Your task to perform on an android device: change keyboard looks Image 0: 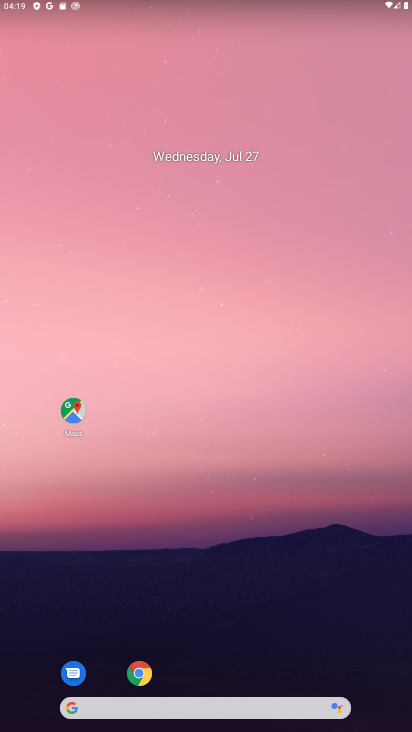
Step 0: drag from (372, 675) to (315, 131)
Your task to perform on an android device: change keyboard looks Image 1: 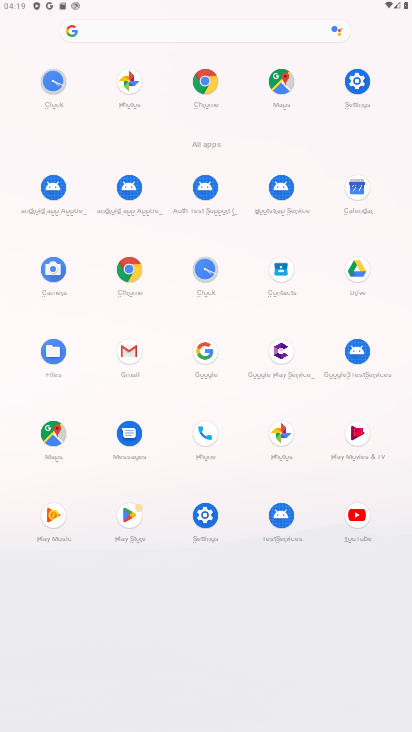
Step 1: click (204, 515)
Your task to perform on an android device: change keyboard looks Image 2: 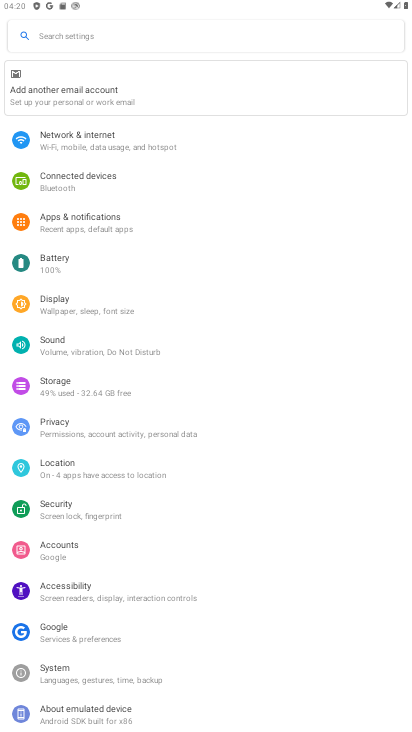
Step 2: drag from (266, 667) to (275, 251)
Your task to perform on an android device: change keyboard looks Image 3: 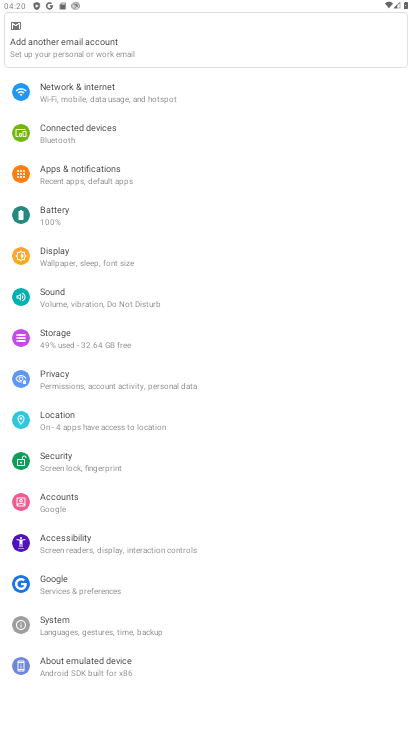
Step 3: click (73, 632)
Your task to perform on an android device: change keyboard looks Image 4: 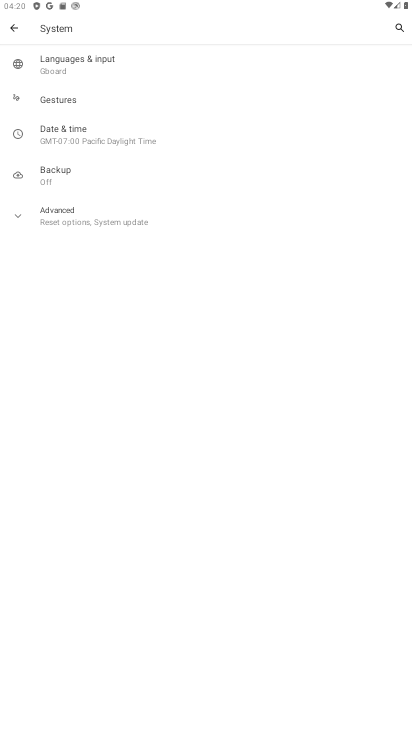
Step 4: click (87, 61)
Your task to perform on an android device: change keyboard looks Image 5: 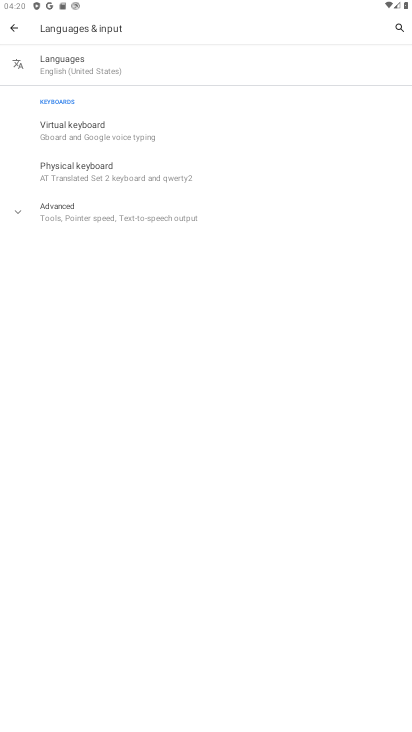
Step 5: click (91, 165)
Your task to perform on an android device: change keyboard looks Image 6: 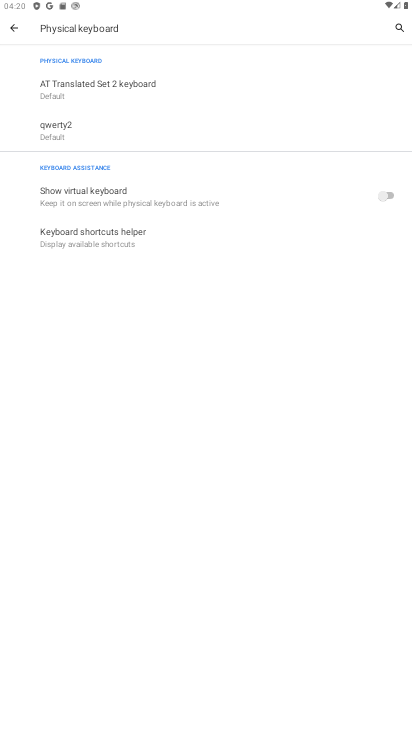
Step 6: click (70, 129)
Your task to perform on an android device: change keyboard looks Image 7: 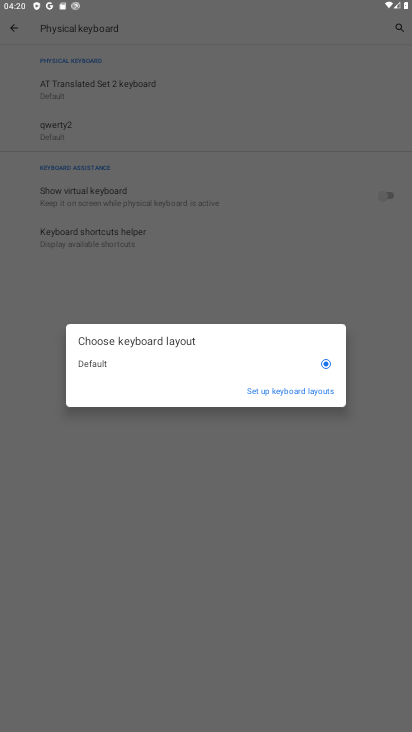
Step 7: click (301, 391)
Your task to perform on an android device: change keyboard looks Image 8: 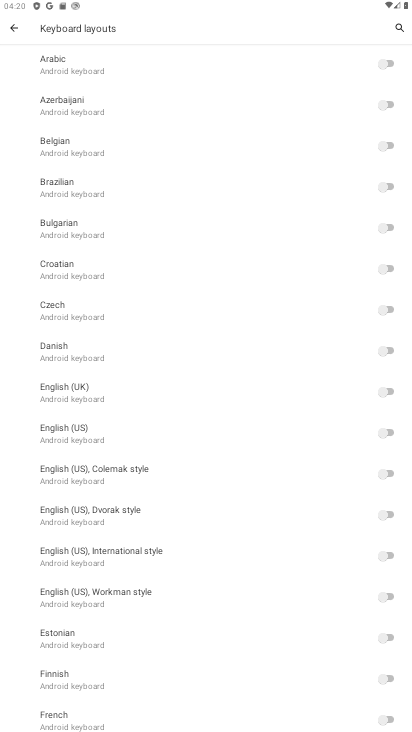
Step 8: click (392, 595)
Your task to perform on an android device: change keyboard looks Image 9: 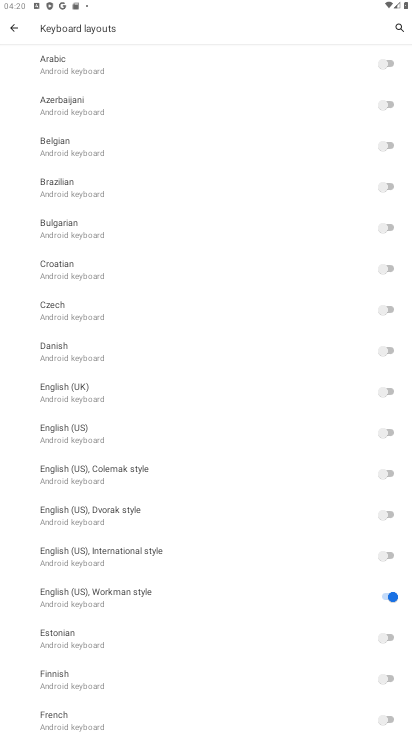
Step 9: task complete